Your task to perform on an android device: turn notification dots on Image 0: 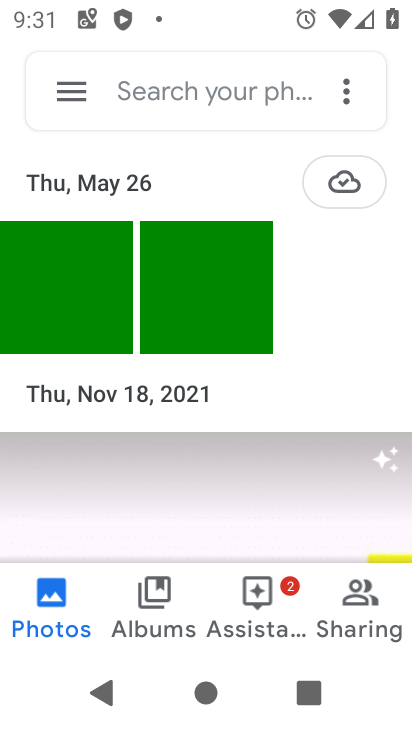
Step 0: press back button
Your task to perform on an android device: turn notification dots on Image 1: 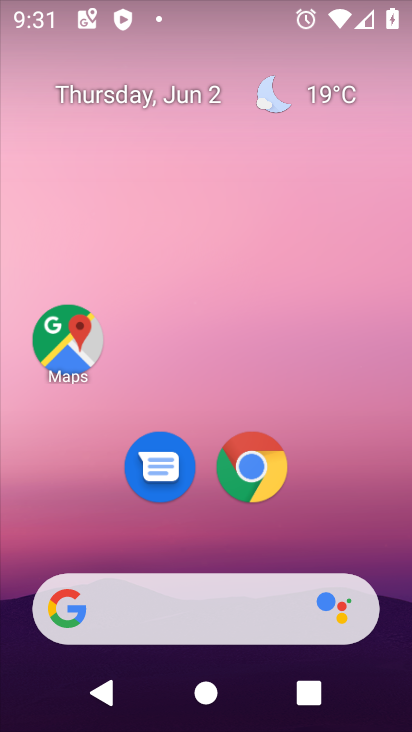
Step 1: drag from (231, 543) to (98, 8)
Your task to perform on an android device: turn notification dots on Image 2: 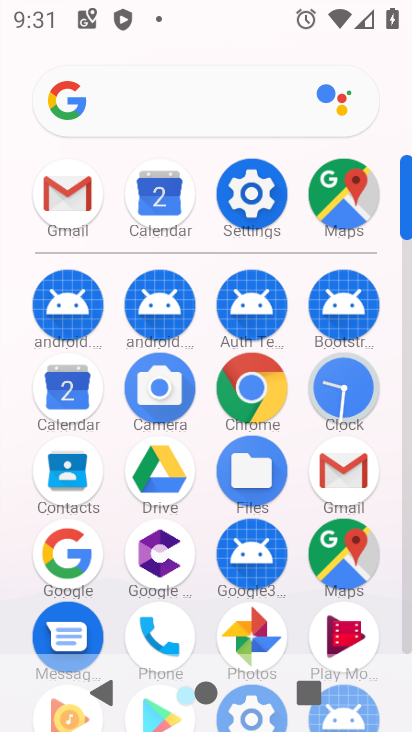
Step 2: click (254, 207)
Your task to perform on an android device: turn notification dots on Image 3: 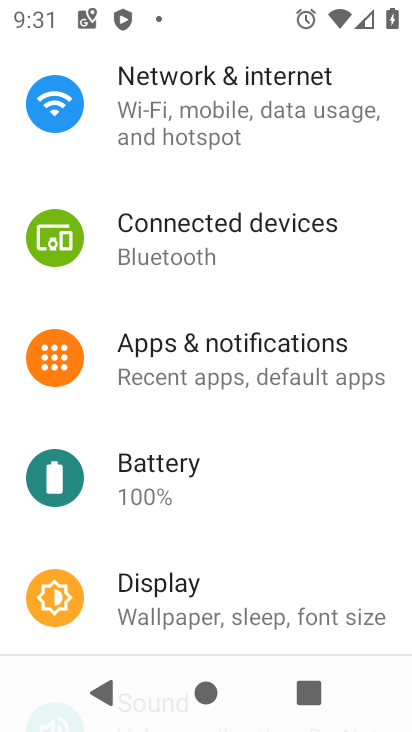
Step 3: click (197, 377)
Your task to perform on an android device: turn notification dots on Image 4: 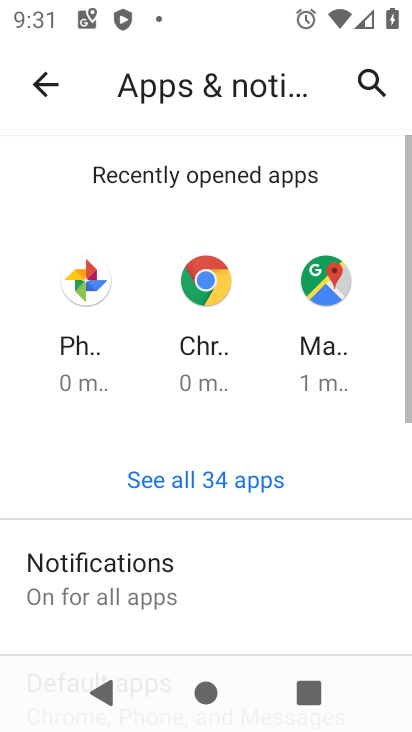
Step 4: click (151, 597)
Your task to perform on an android device: turn notification dots on Image 5: 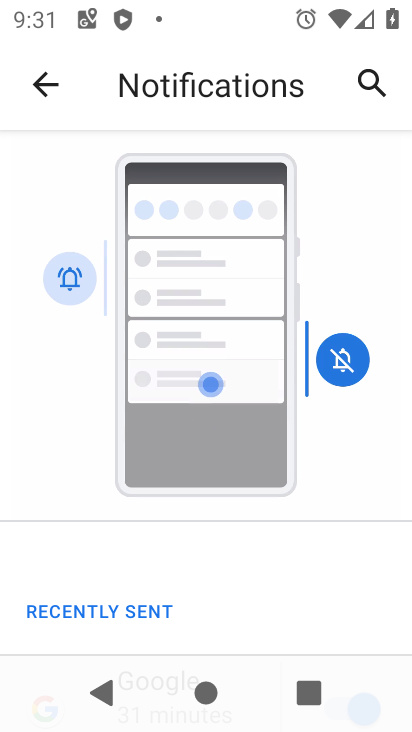
Step 5: drag from (151, 597) to (130, 295)
Your task to perform on an android device: turn notification dots on Image 6: 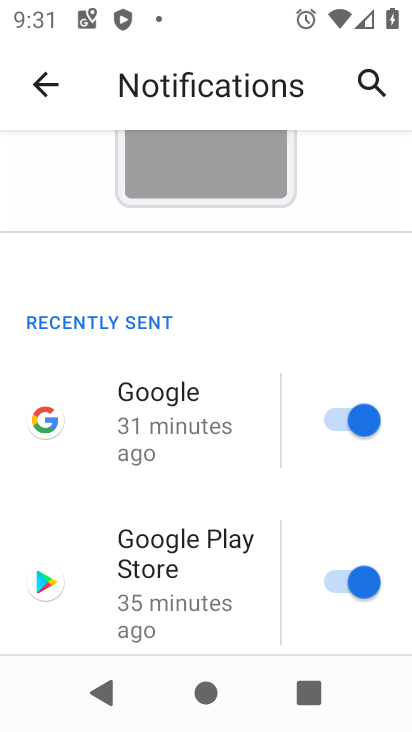
Step 6: drag from (169, 592) to (172, 209)
Your task to perform on an android device: turn notification dots on Image 7: 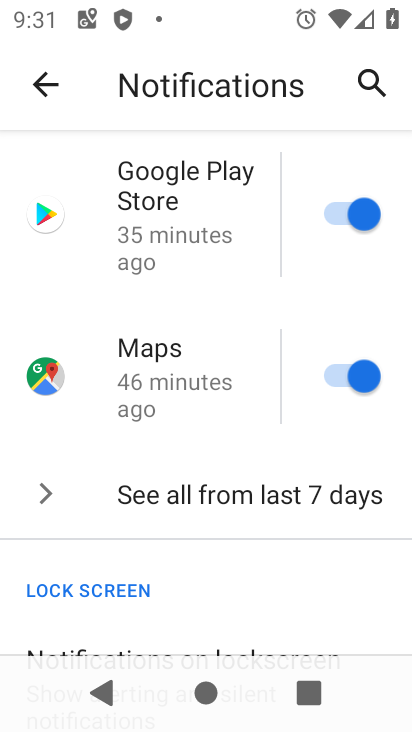
Step 7: drag from (182, 576) to (182, 202)
Your task to perform on an android device: turn notification dots on Image 8: 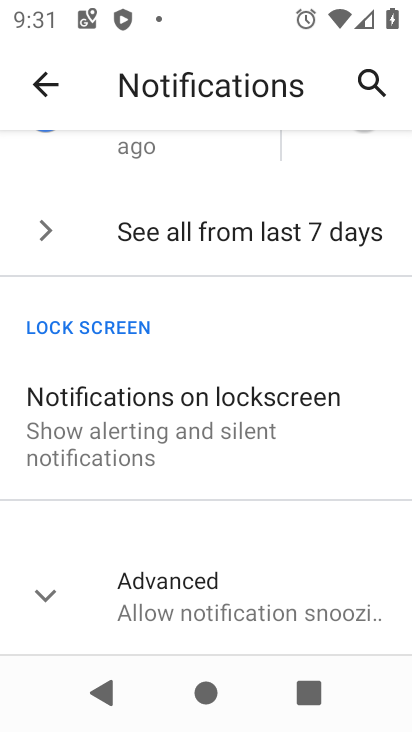
Step 8: drag from (213, 604) to (213, 241)
Your task to perform on an android device: turn notification dots on Image 9: 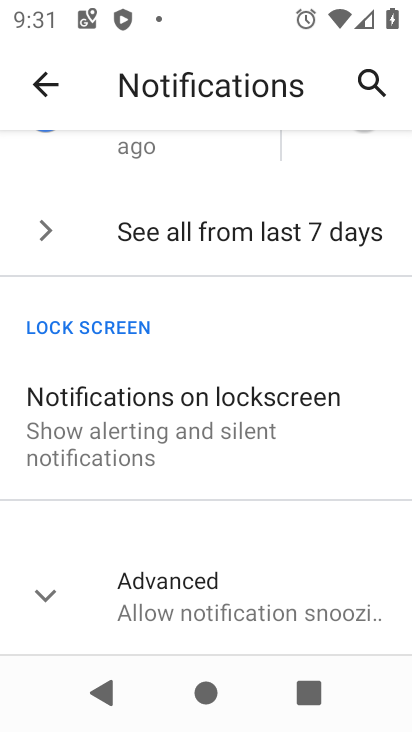
Step 9: click (170, 610)
Your task to perform on an android device: turn notification dots on Image 10: 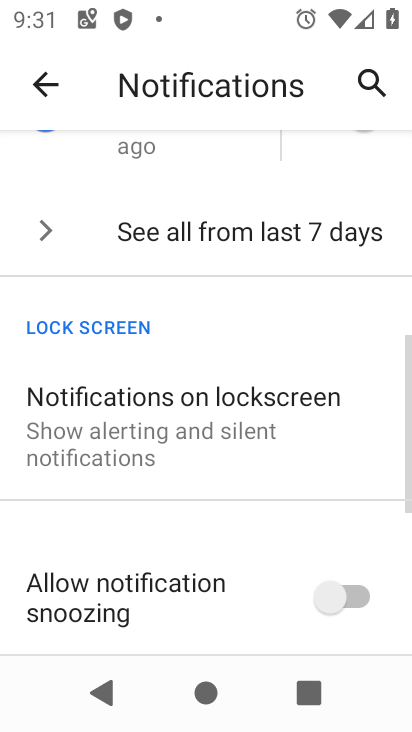
Step 10: task complete